Your task to perform on an android device: turn off priority inbox in the gmail app Image 0: 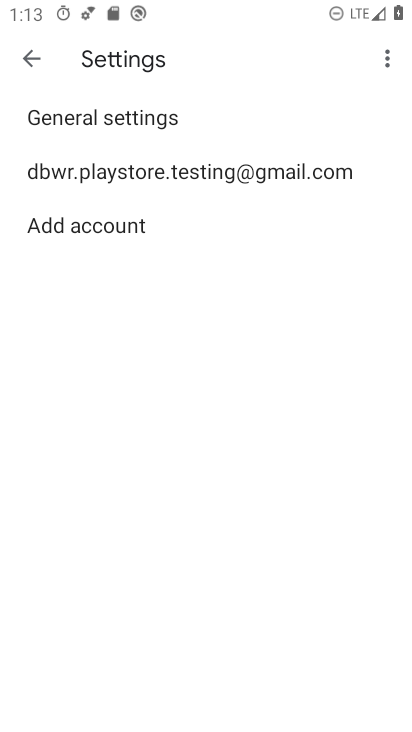
Step 0: click (116, 176)
Your task to perform on an android device: turn off priority inbox in the gmail app Image 1: 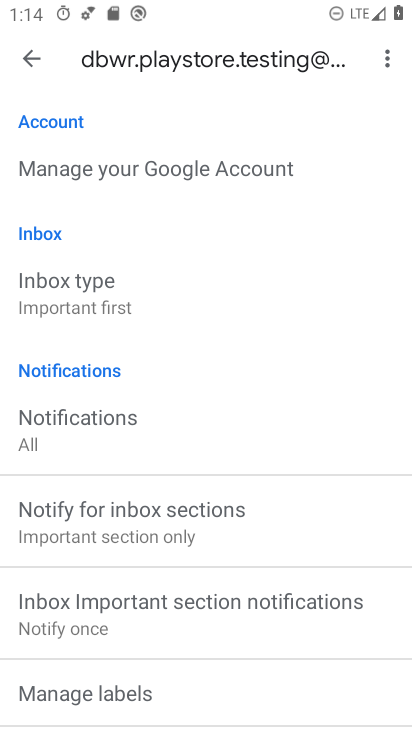
Step 1: click (74, 294)
Your task to perform on an android device: turn off priority inbox in the gmail app Image 2: 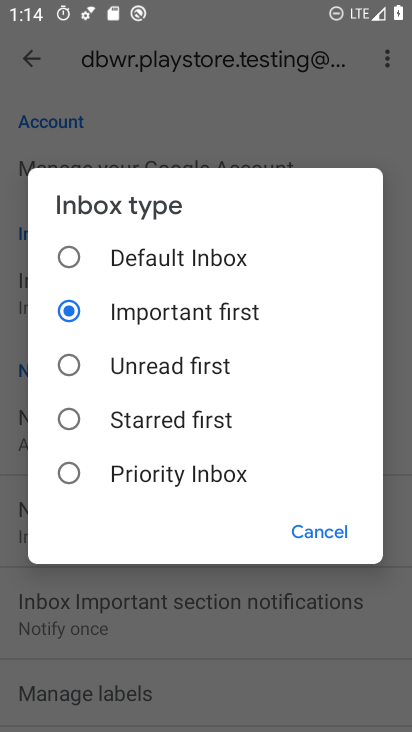
Step 2: click (314, 529)
Your task to perform on an android device: turn off priority inbox in the gmail app Image 3: 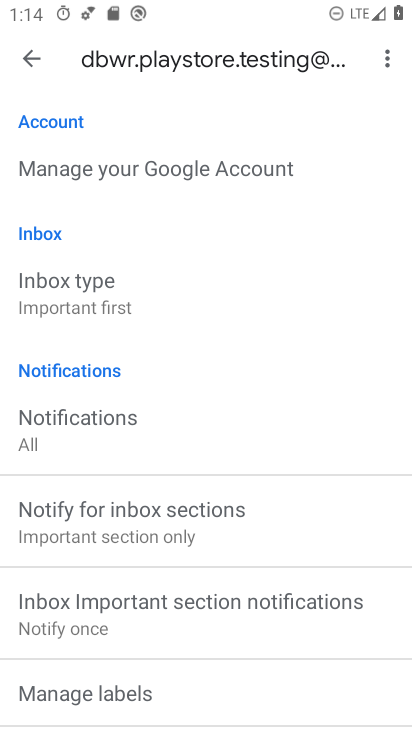
Step 3: task complete